Your task to perform on an android device: check google app version Image 0: 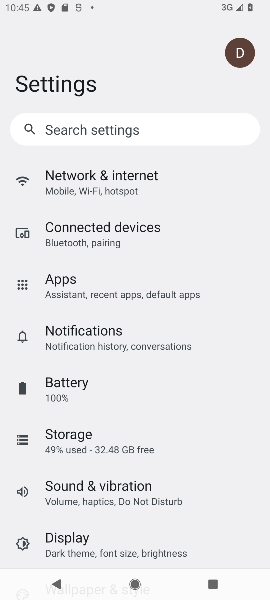
Step 0: press home button
Your task to perform on an android device: check google app version Image 1: 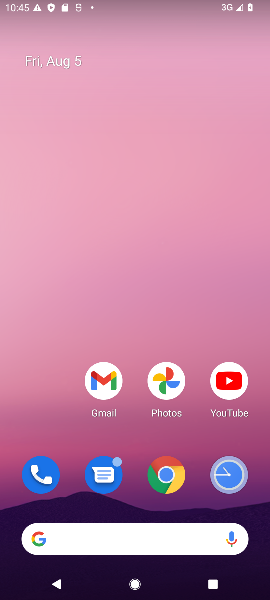
Step 1: drag from (122, 503) to (66, 541)
Your task to perform on an android device: check google app version Image 2: 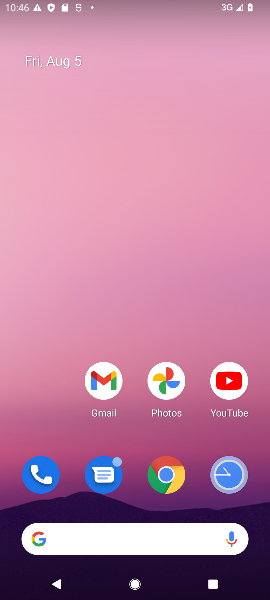
Step 2: click (35, 531)
Your task to perform on an android device: check google app version Image 3: 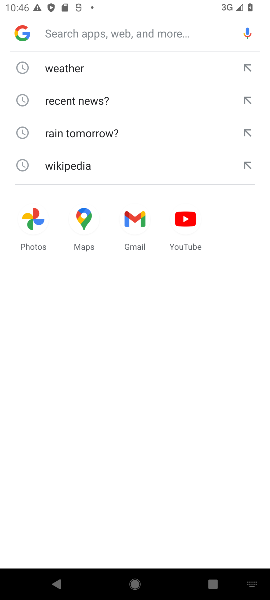
Step 3: click (18, 32)
Your task to perform on an android device: check google app version Image 4: 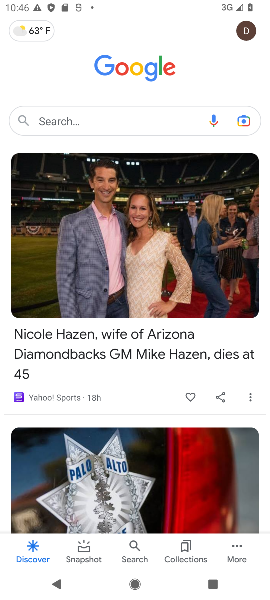
Step 4: click (238, 549)
Your task to perform on an android device: check google app version Image 5: 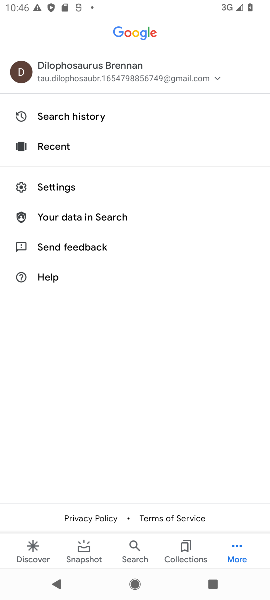
Step 5: click (62, 187)
Your task to perform on an android device: check google app version Image 6: 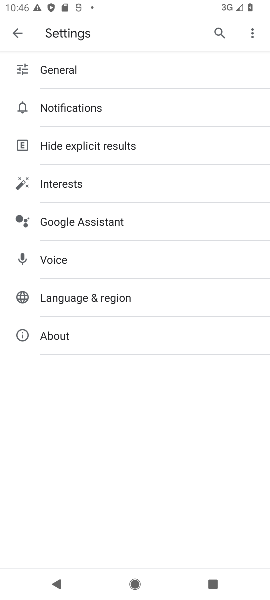
Step 6: click (77, 337)
Your task to perform on an android device: check google app version Image 7: 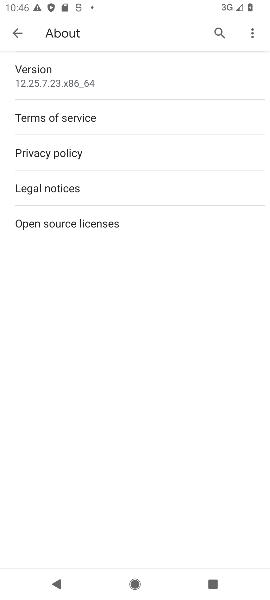
Step 7: task complete